Your task to perform on an android device: Do I have any events today? Image 0: 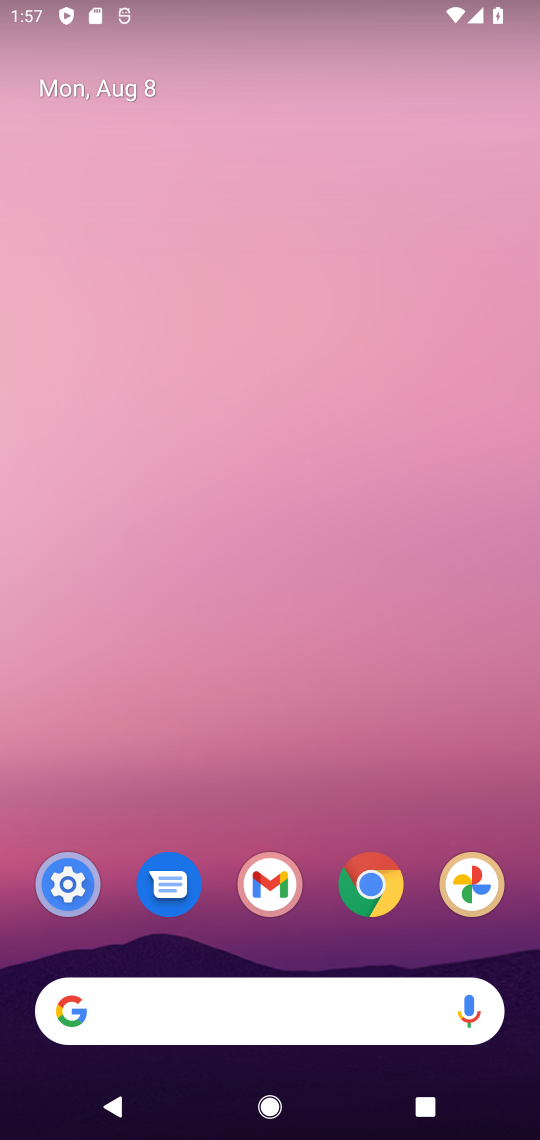
Step 0: drag from (257, 802) to (228, 226)
Your task to perform on an android device: Do I have any events today? Image 1: 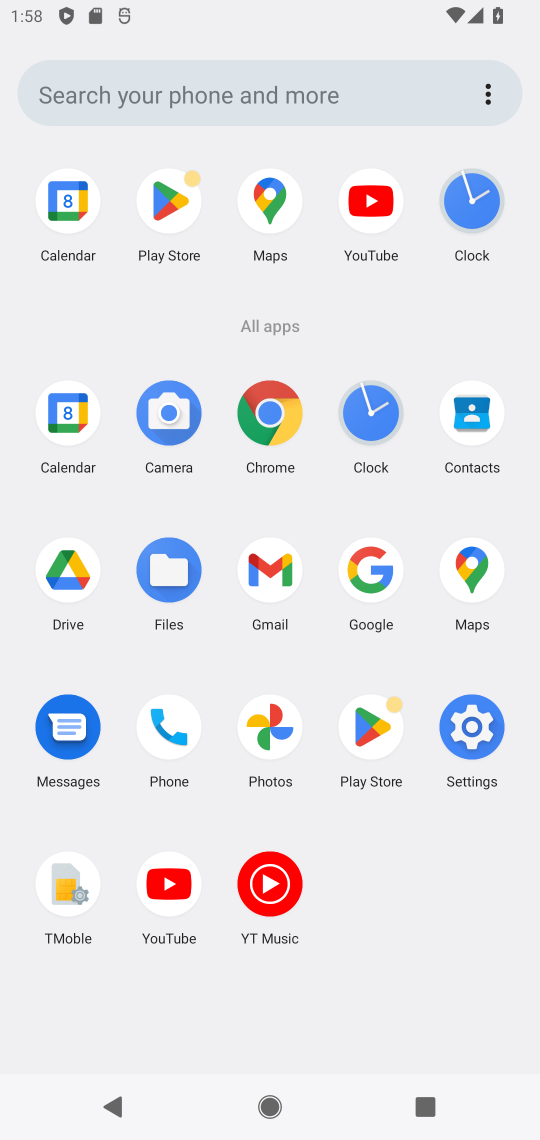
Step 1: click (71, 183)
Your task to perform on an android device: Do I have any events today? Image 2: 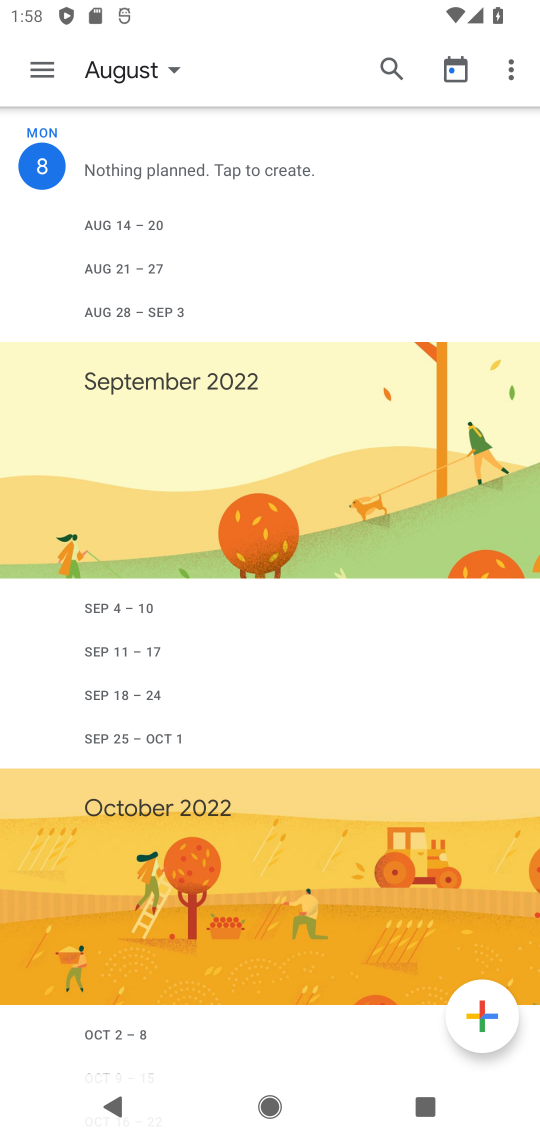
Step 2: click (41, 56)
Your task to perform on an android device: Do I have any events today? Image 3: 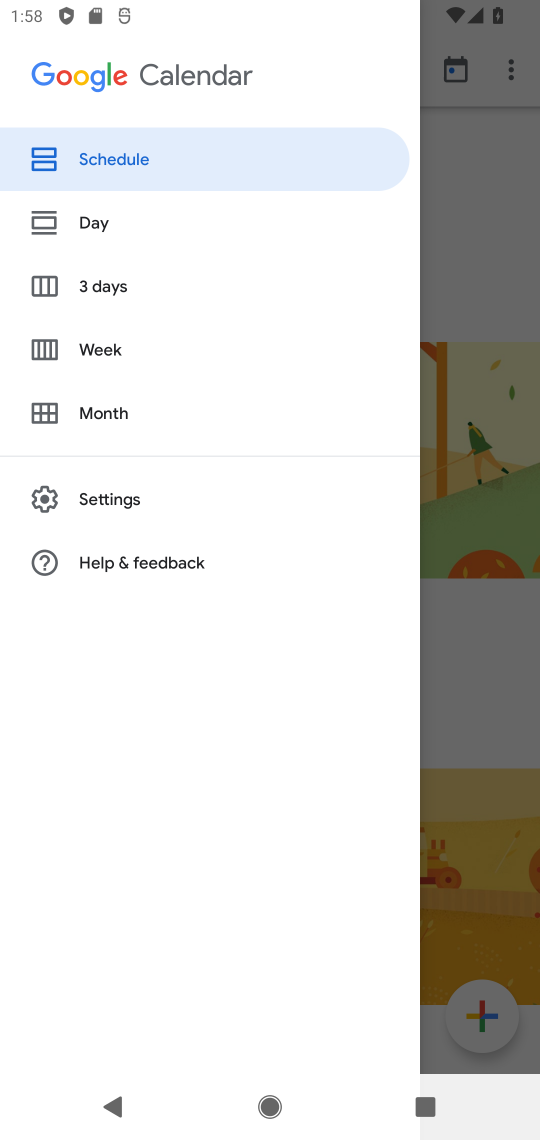
Step 3: click (103, 223)
Your task to perform on an android device: Do I have any events today? Image 4: 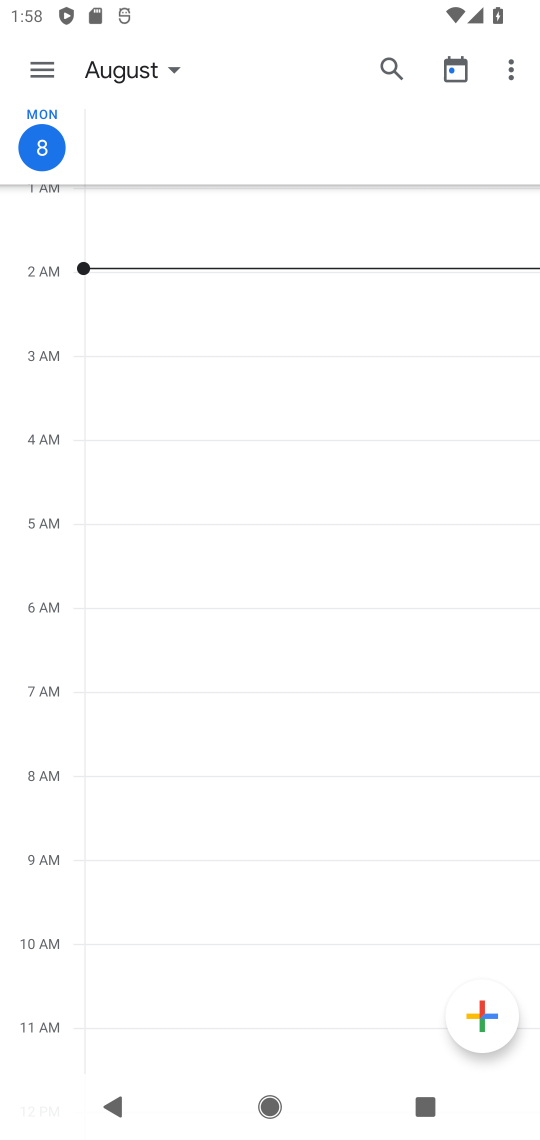
Step 4: task complete